Your task to perform on an android device: delete location history Image 0: 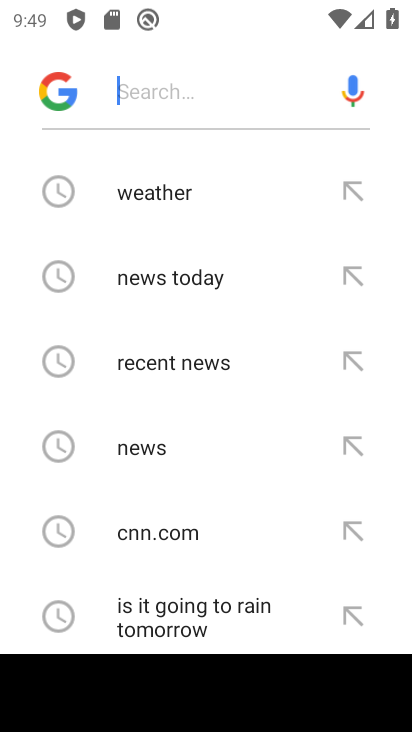
Step 0: press home button
Your task to perform on an android device: delete location history Image 1: 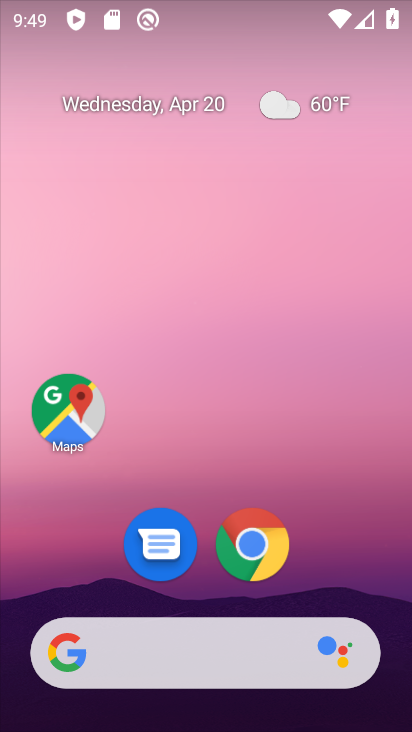
Step 1: drag from (359, 581) to (300, 221)
Your task to perform on an android device: delete location history Image 2: 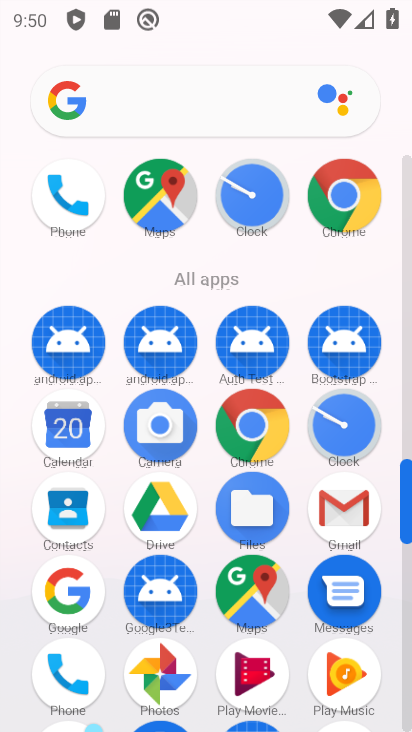
Step 2: click (168, 205)
Your task to perform on an android device: delete location history Image 3: 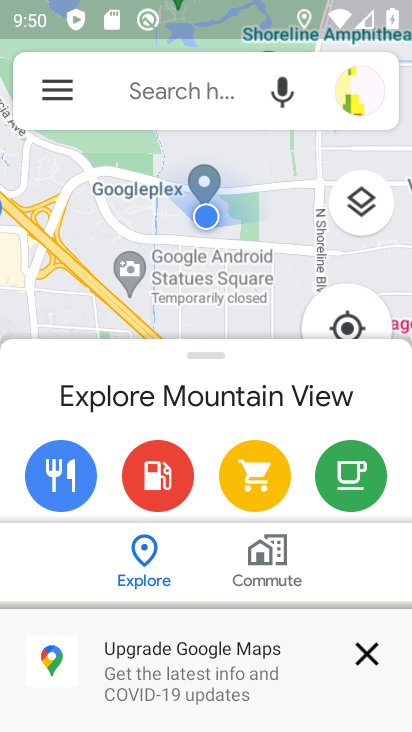
Step 3: click (58, 90)
Your task to perform on an android device: delete location history Image 4: 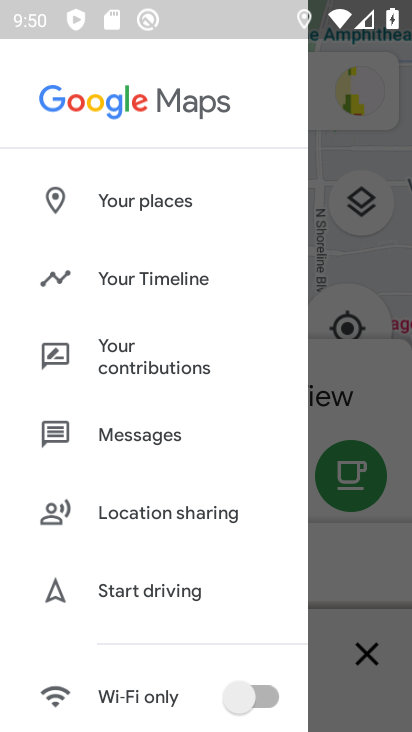
Step 4: click (146, 293)
Your task to perform on an android device: delete location history Image 5: 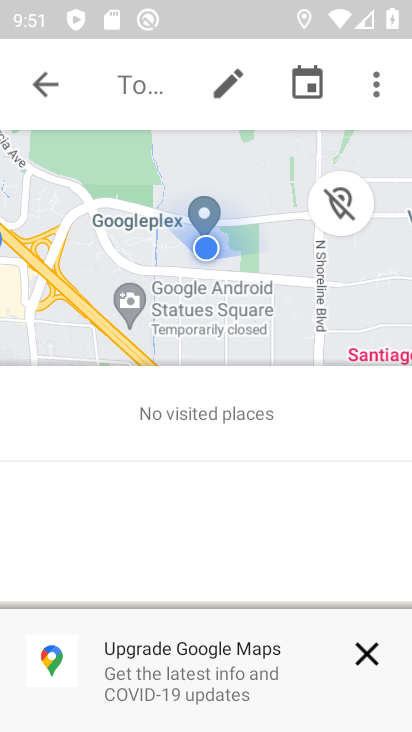
Step 5: click (371, 78)
Your task to perform on an android device: delete location history Image 6: 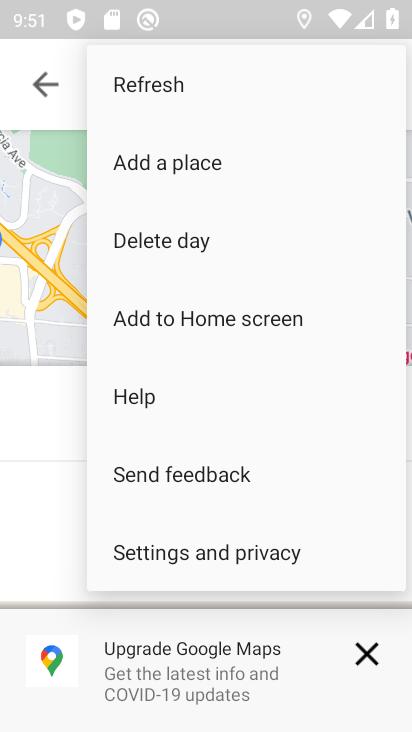
Step 6: click (258, 549)
Your task to perform on an android device: delete location history Image 7: 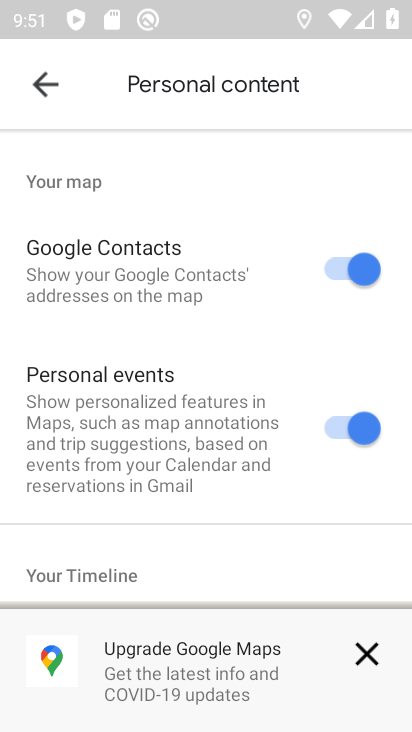
Step 7: drag from (258, 549) to (294, 10)
Your task to perform on an android device: delete location history Image 8: 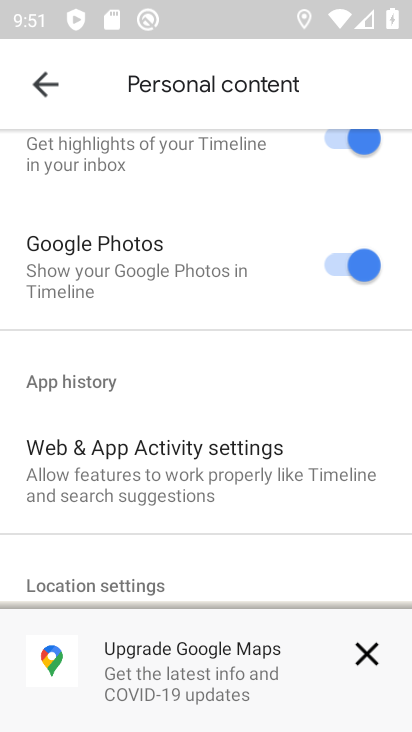
Step 8: drag from (256, 587) to (258, 199)
Your task to perform on an android device: delete location history Image 9: 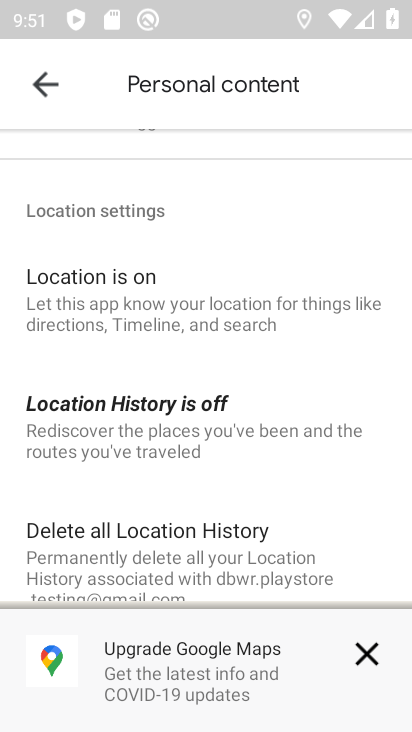
Step 9: click (224, 564)
Your task to perform on an android device: delete location history Image 10: 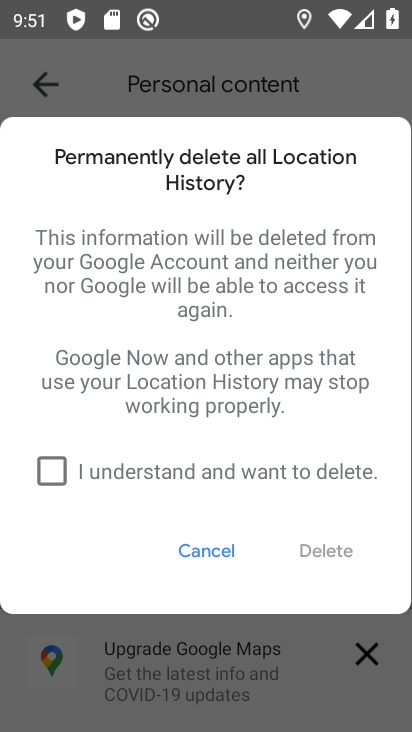
Step 10: click (220, 467)
Your task to perform on an android device: delete location history Image 11: 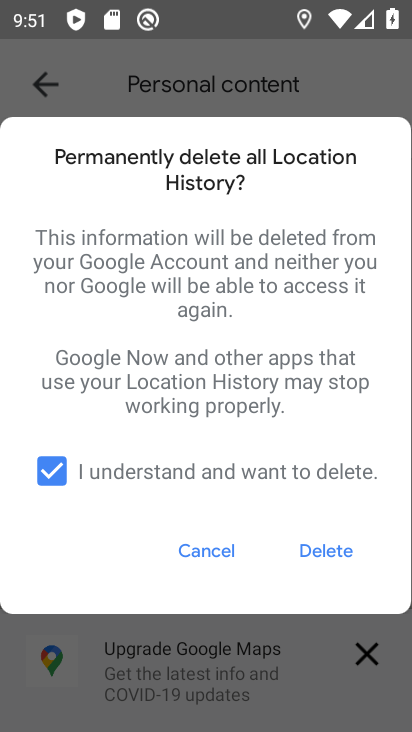
Step 11: click (329, 553)
Your task to perform on an android device: delete location history Image 12: 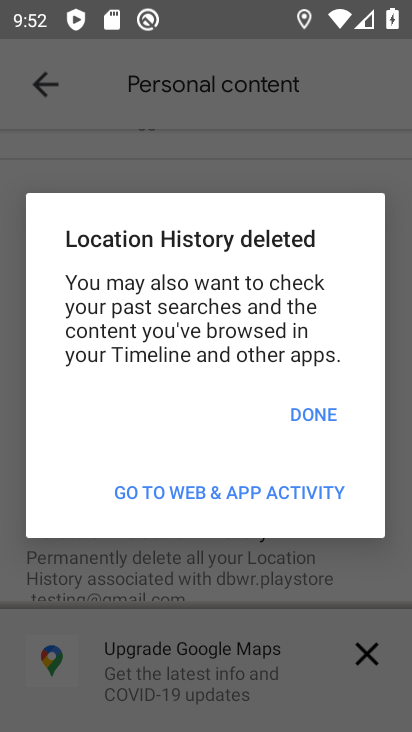
Step 12: click (321, 403)
Your task to perform on an android device: delete location history Image 13: 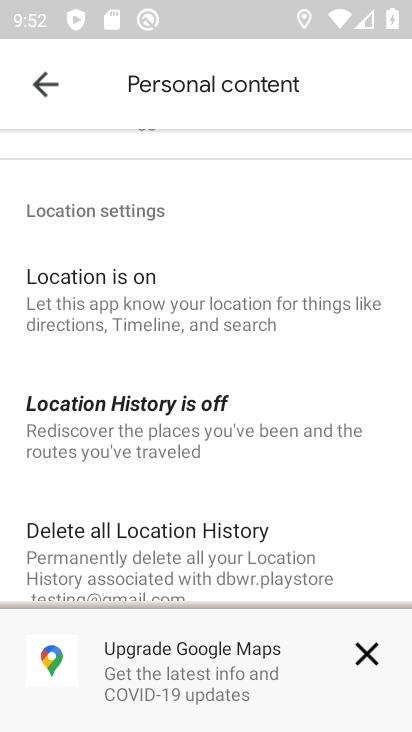
Step 13: task complete